Your task to perform on an android device: uninstall "Adobe Acrobat Reader: Edit PDF" Image 0: 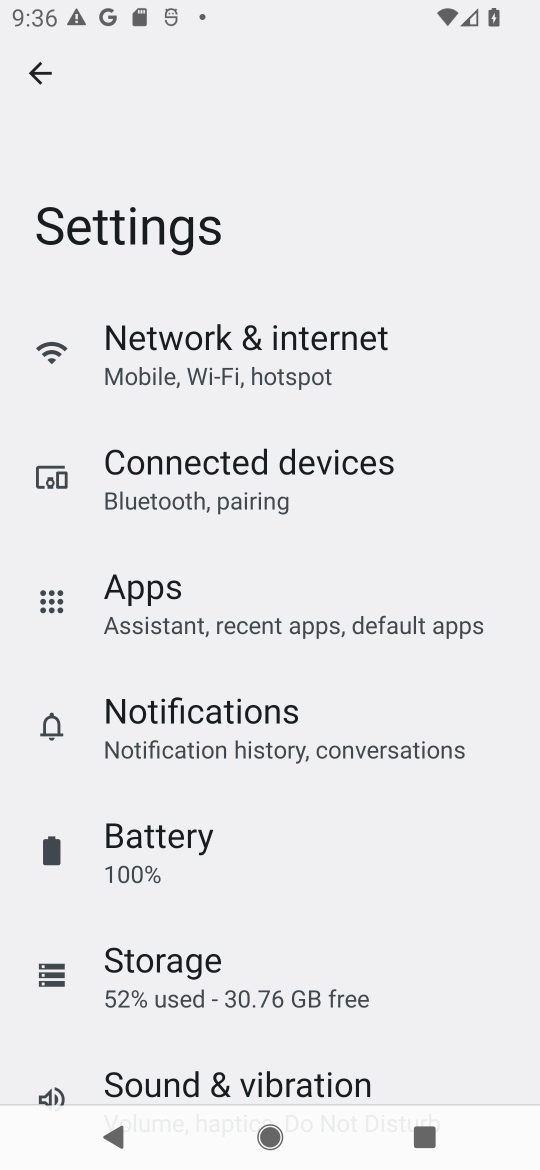
Step 0: press home button
Your task to perform on an android device: uninstall "Adobe Acrobat Reader: Edit PDF" Image 1: 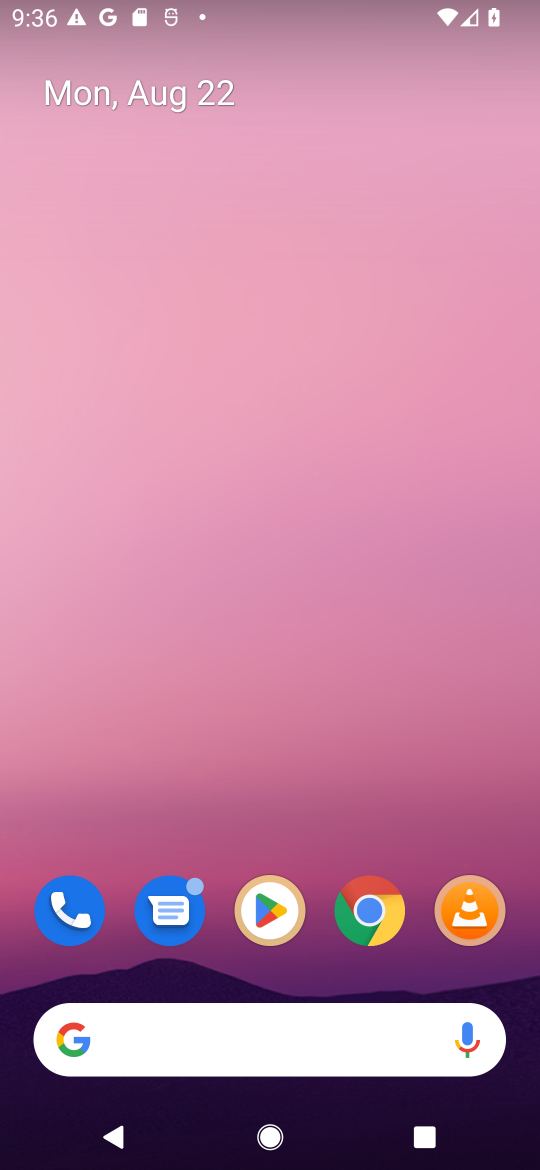
Step 1: click (274, 899)
Your task to perform on an android device: uninstall "Adobe Acrobat Reader: Edit PDF" Image 2: 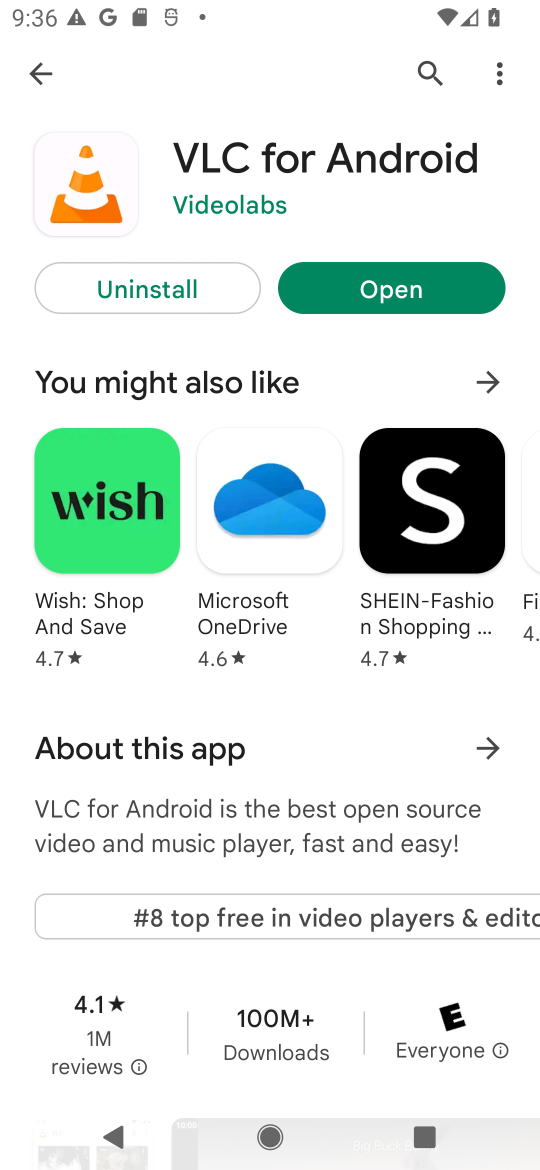
Step 2: click (424, 72)
Your task to perform on an android device: uninstall "Adobe Acrobat Reader: Edit PDF" Image 3: 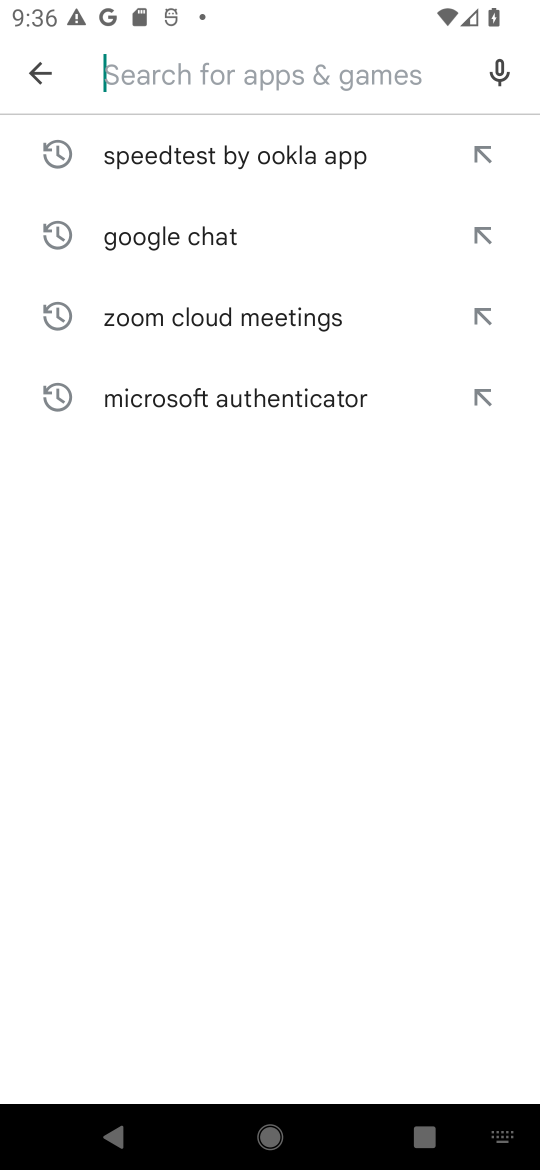
Step 3: type "Adobe Acrobat Reader: Edit PDF"
Your task to perform on an android device: uninstall "Adobe Acrobat Reader: Edit PDF" Image 4: 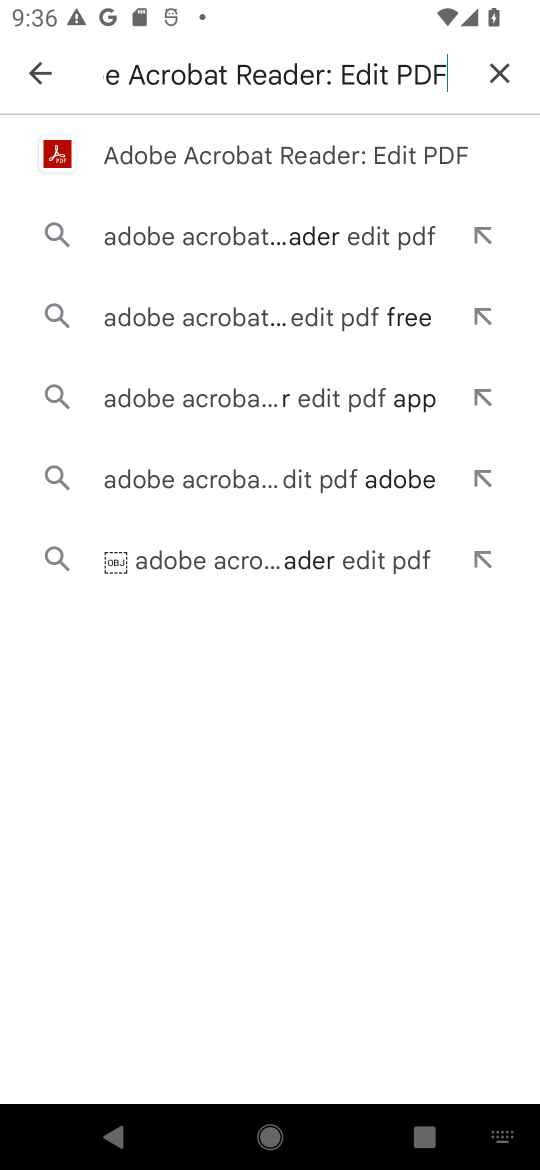
Step 4: click (308, 145)
Your task to perform on an android device: uninstall "Adobe Acrobat Reader: Edit PDF" Image 5: 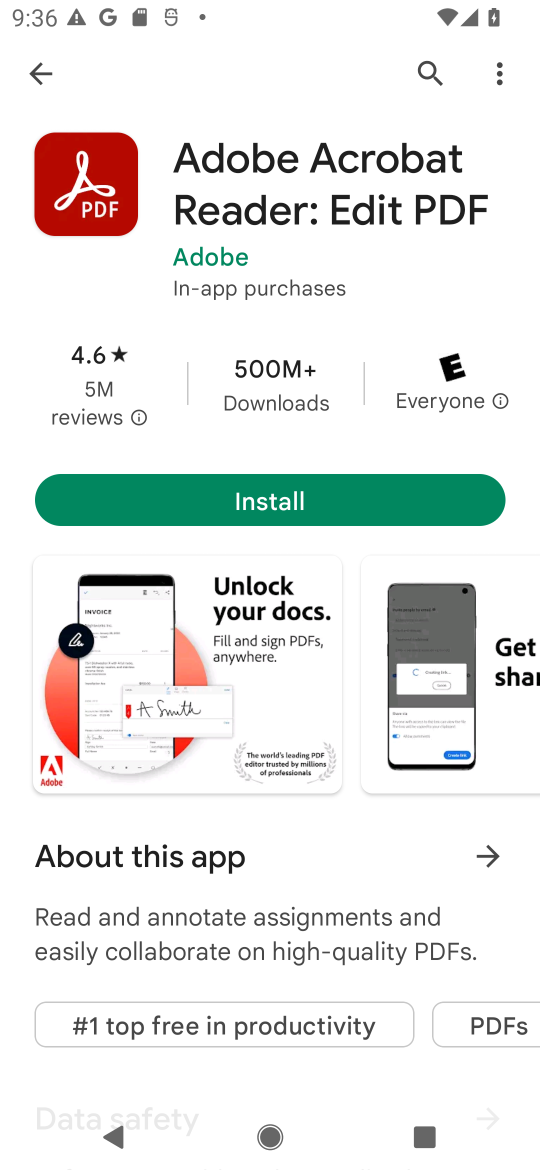
Step 5: task complete